Your task to perform on an android device: turn on airplane mode Image 0: 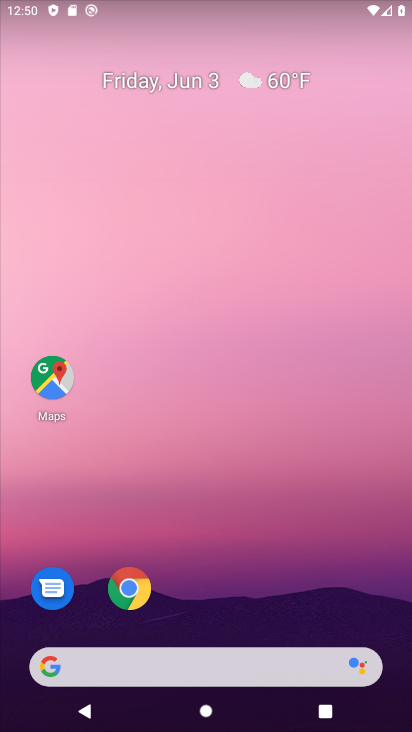
Step 0: drag from (305, 542) to (274, 134)
Your task to perform on an android device: turn on airplane mode Image 1: 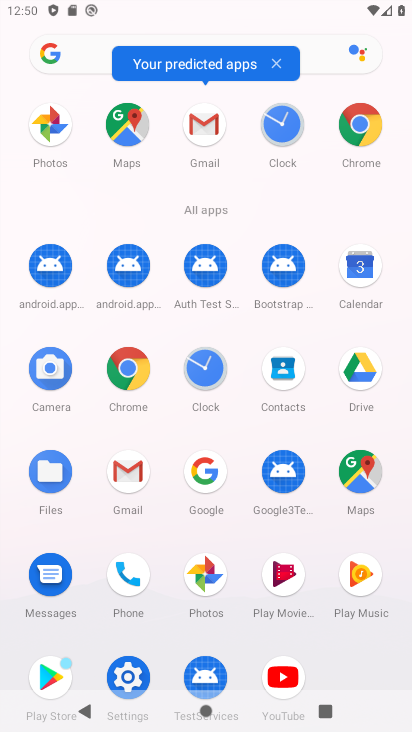
Step 1: click (132, 678)
Your task to perform on an android device: turn on airplane mode Image 2: 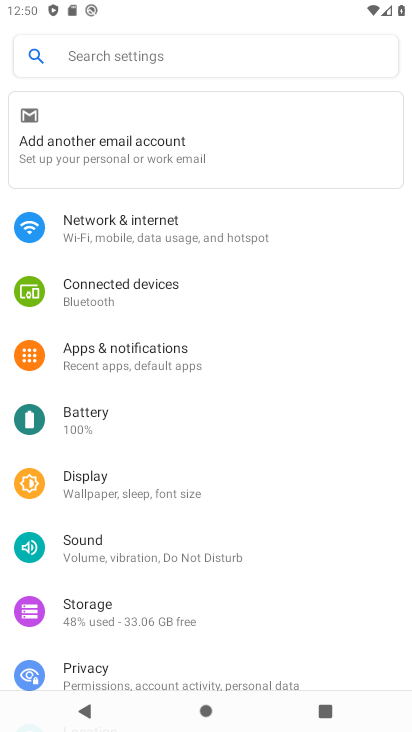
Step 2: click (176, 231)
Your task to perform on an android device: turn on airplane mode Image 3: 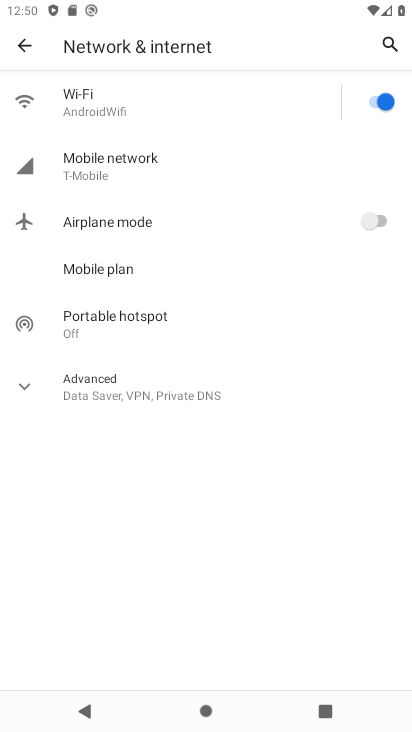
Step 3: click (373, 229)
Your task to perform on an android device: turn on airplane mode Image 4: 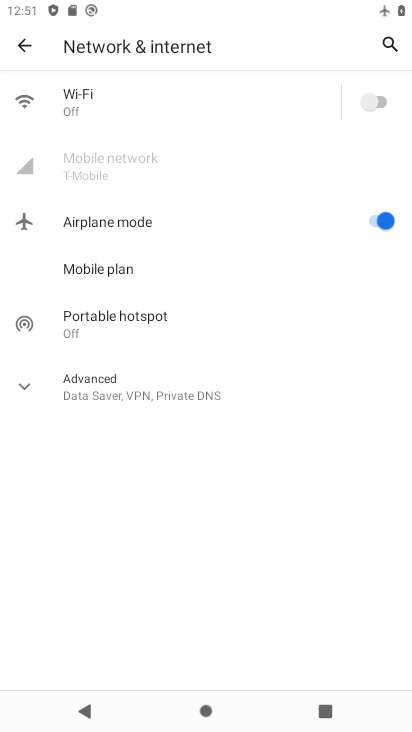
Step 4: task complete